Your task to perform on an android device: toggle show notifications on the lock screen Image 0: 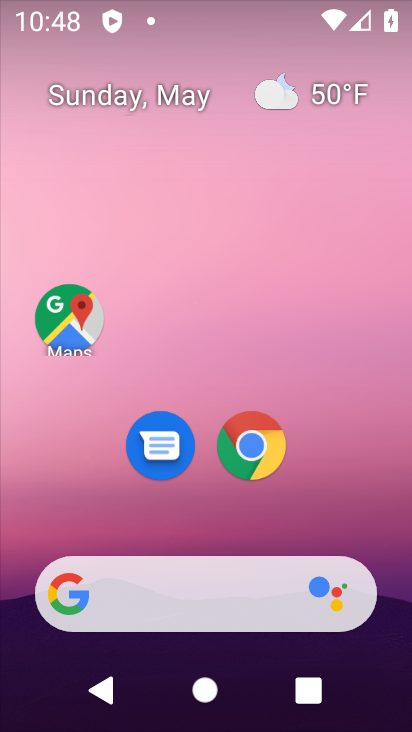
Step 0: drag from (297, 514) to (310, 205)
Your task to perform on an android device: toggle show notifications on the lock screen Image 1: 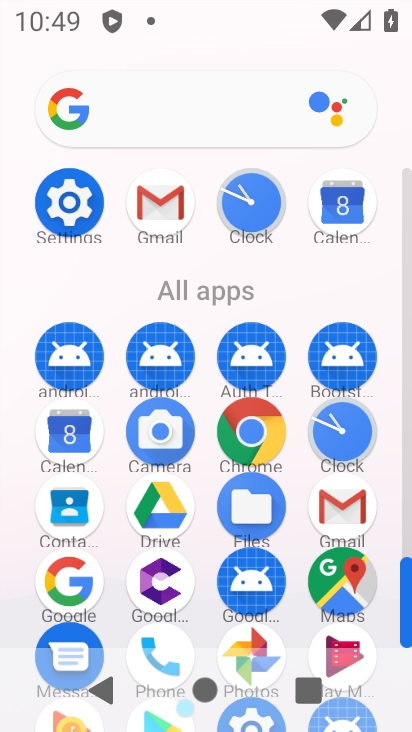
Step 1: click (58, 206)
Your task to perform on an android device: toggle show notifications on the lock screen Image 2: 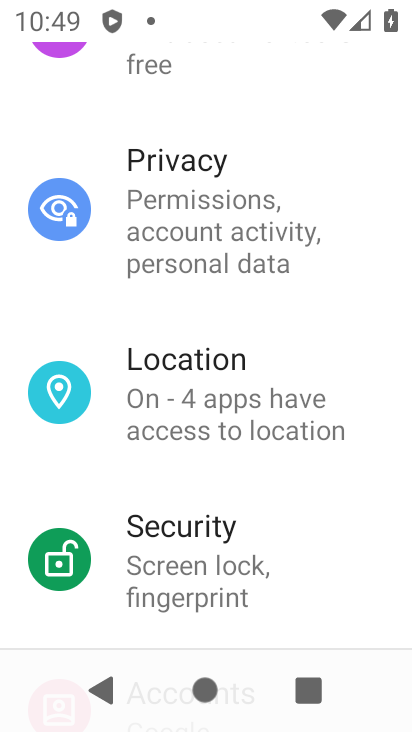
Step 2: drag from (242, 298) to (206, 718)
Your task to perform on an android device: toggle show notifications on the lock screen Image 3: 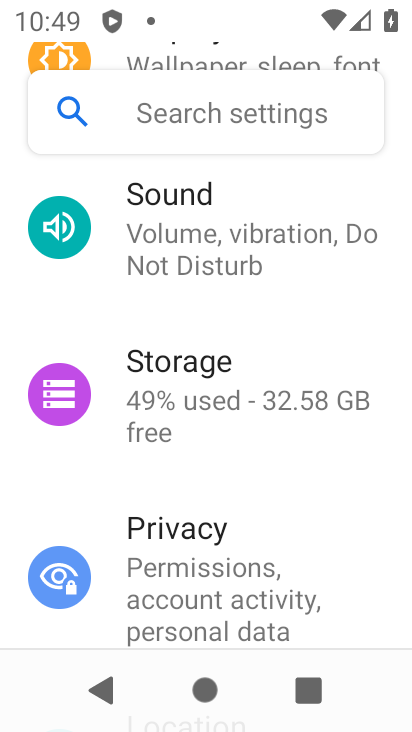
Step 3: drag from (238, 321) to (232, 640)
Your task to perform on an android device: toggle show notifications on the lock screen Image 4: 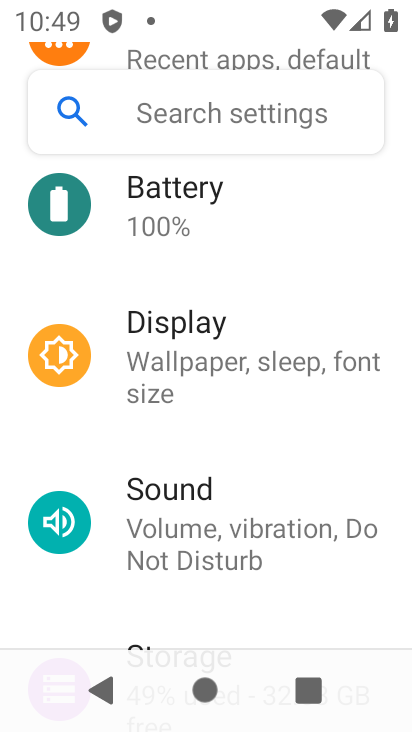
Step 4: drag from (207, 264) to (200, 574)
Your task to perform on an android device: toggle show notifications on the lock screen Image 5: 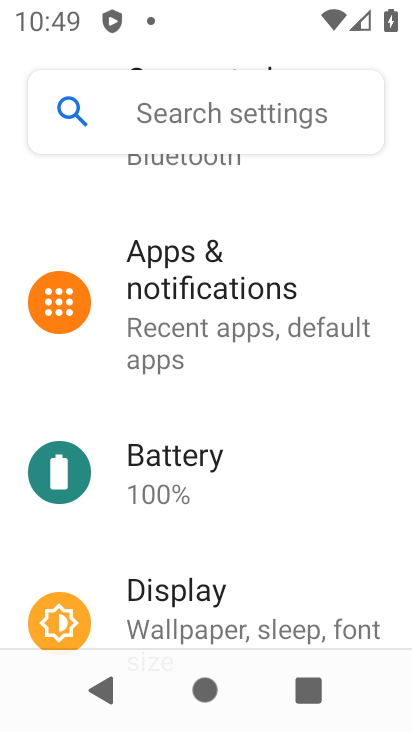
Step 5: click (203, 339)
Your task to perform on an android device: toggle show notifications on the lock screen Image 6: 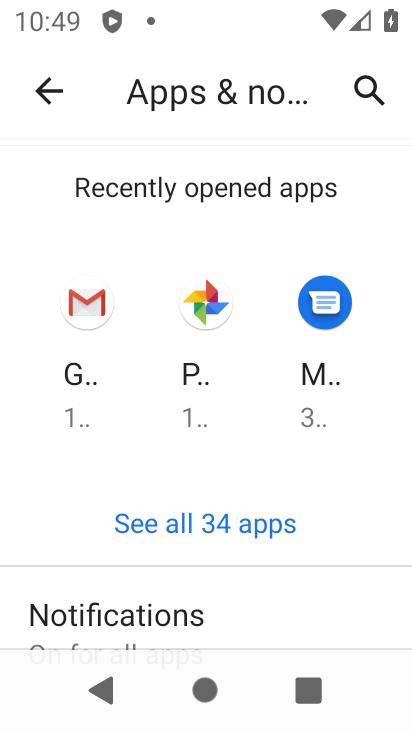
Step 6: drag from (274, 568) to (276, 238)
Your task to perform on an android device: toggle show notifications on the lock screen Image 7: 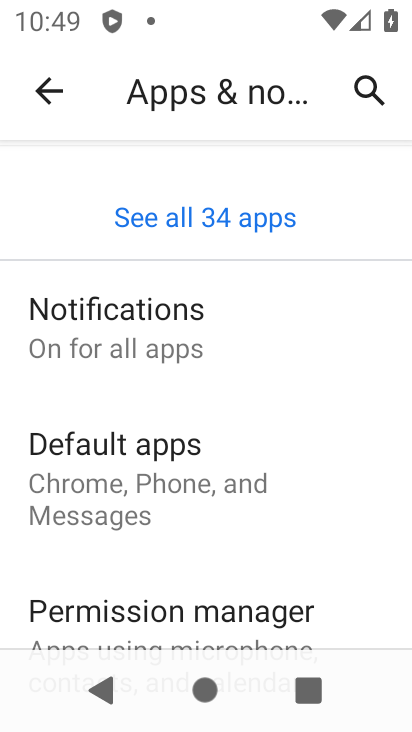
Step 7: click (170, 336)
Your task to perform on an android device: toggle show notifications on the lock screen Image 8: 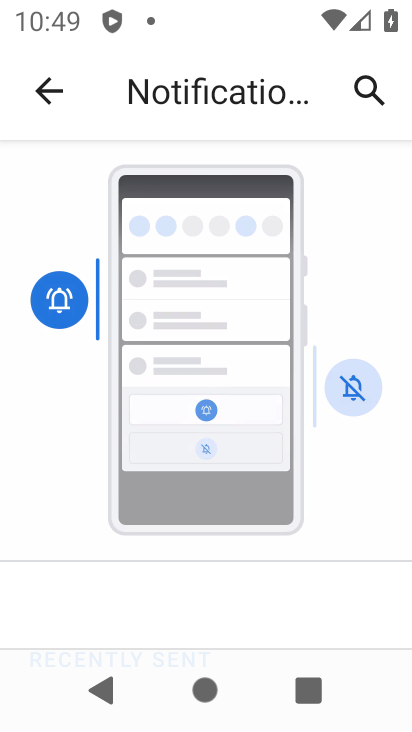
Step 8: drag from (205, 592) to (224, 323)
Your task to perform on an android device: toggle show notifications on the lock screen Image 9: 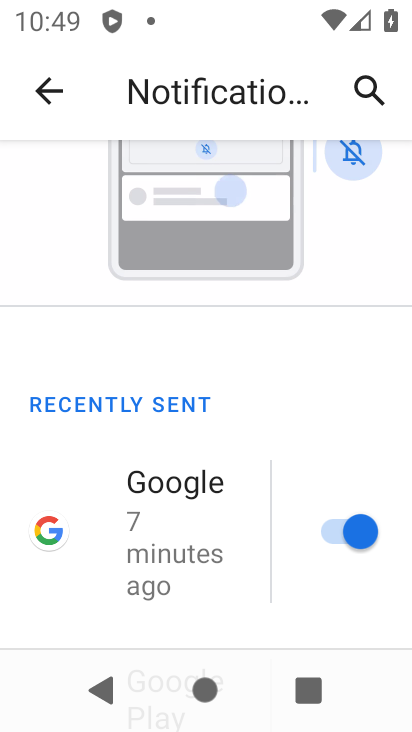
Step 9: drag from (173, 540) to (200, 296)
Your task to perform on an android device: toggle show notifications on the lock screen Image 10: 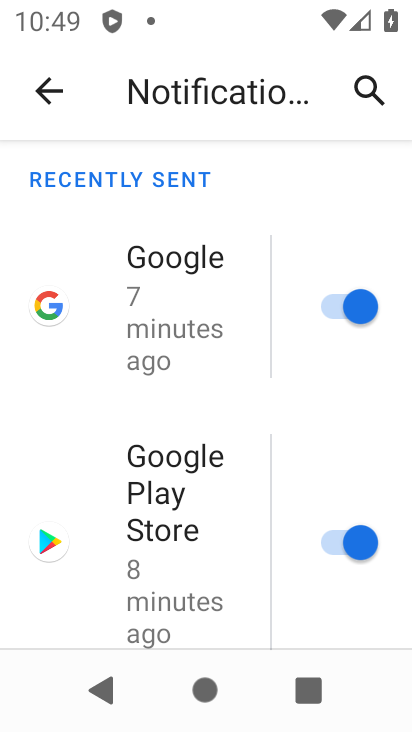
Step 10: drag from (185, 549) to (202, 207)
Your task to perform on an android device: toggle show notifications on the lock screen Image 11: 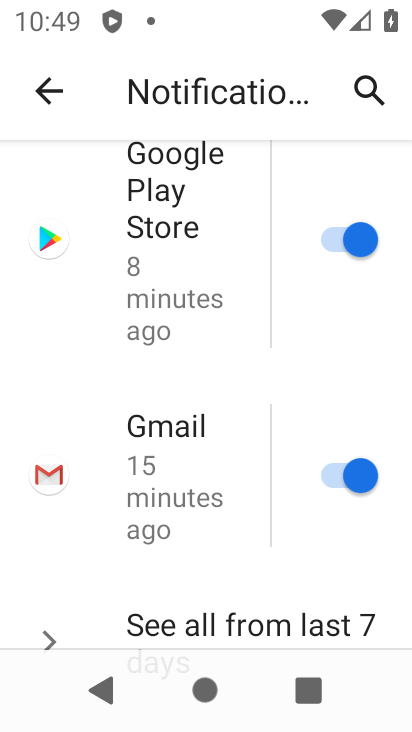
Step 11: drag from (221, 556) to (214, 117)
Your task to perform on an android device: toggle show notifications on the lock screen Image 12: 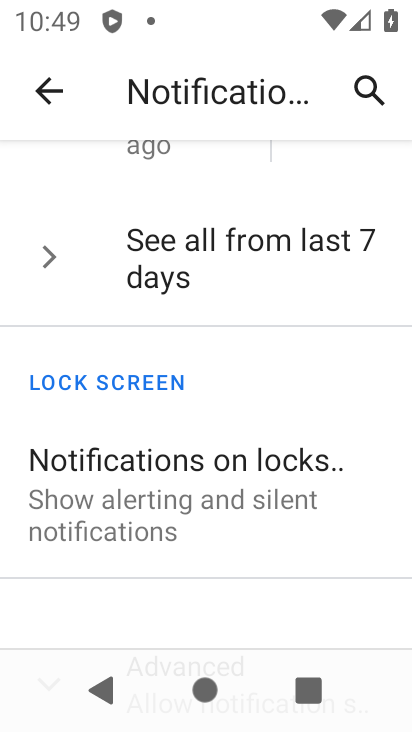
Step 12: click (216, 527)
Your task to perform on an android device: toggle show notifications on the lock screen Image 13: 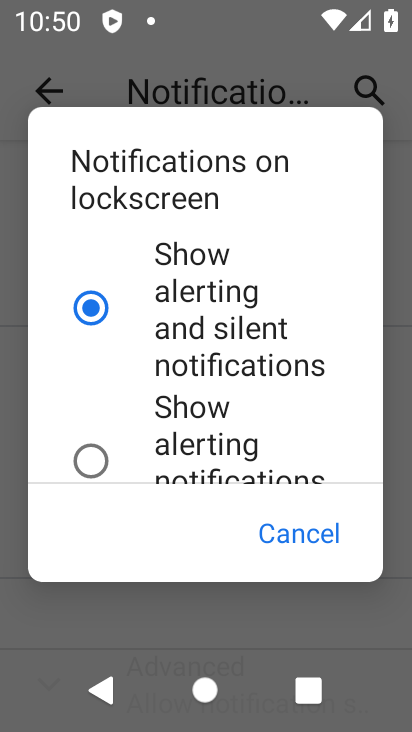
Step 13: drag from (187, 438) to (211, 121)
Your task to perform on an android device: toggle show notifications on the lock screen Image 14: 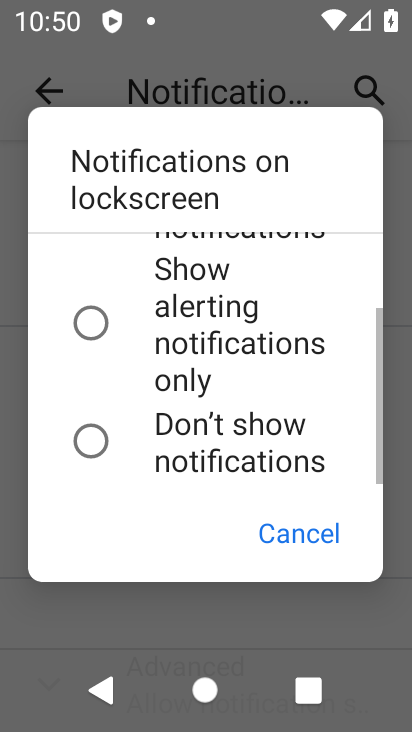
Step 14: click (119, 436)
Your task to perform on an android device: toggle show notifications on the lock screen Image 15: 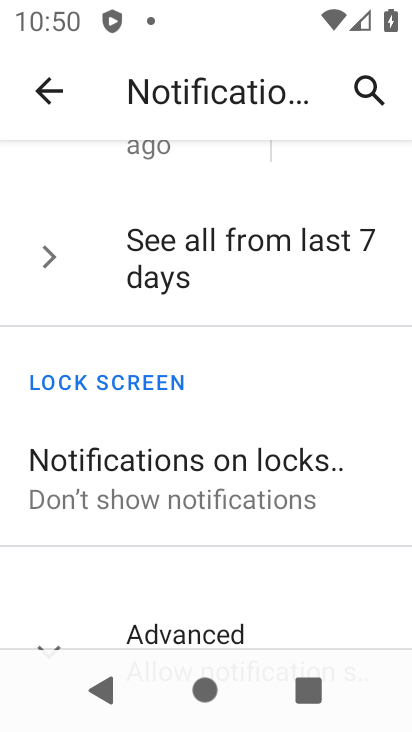
Step 15: task complete